Your task to perform on an android device: Go to wifi settings Image 0: 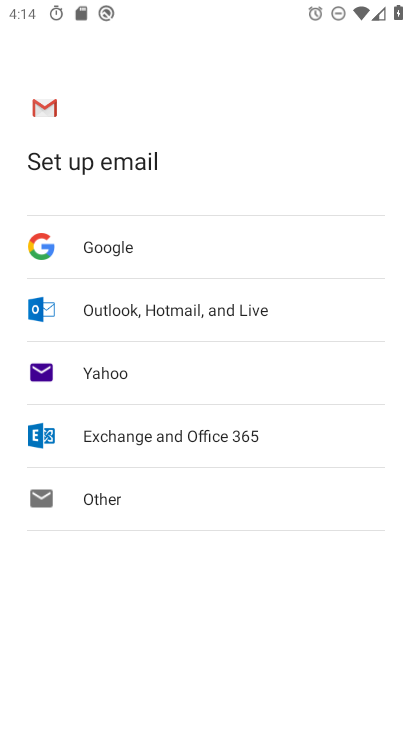
Step 0: press home button
Your task to perform on an android device: Go to wifi settings Image 1: 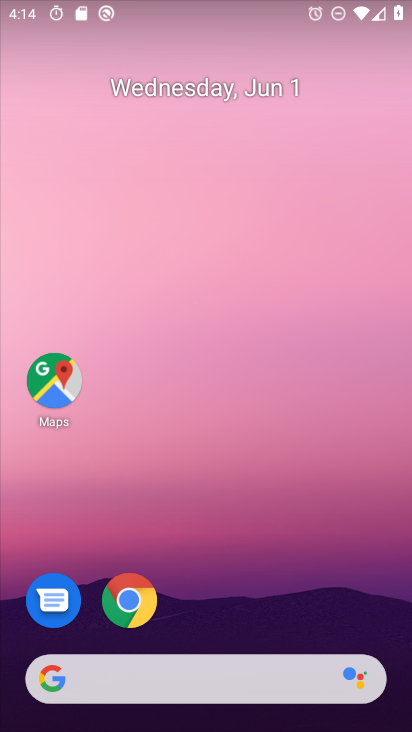
Step 1: drag from (198, 624) to (384, 9)
Your task to perform on an android device: Go to wifi settings Image 2: 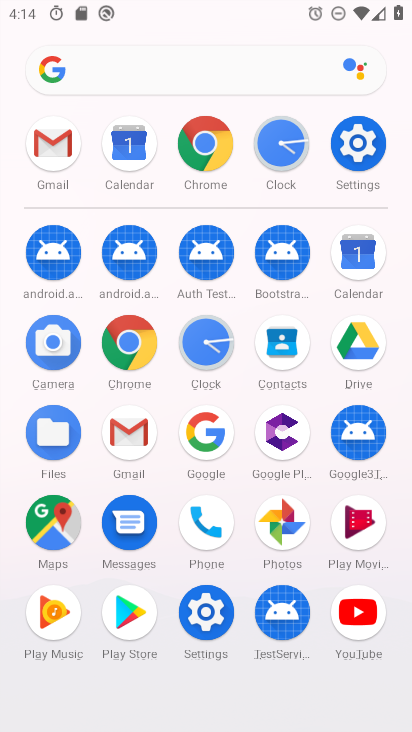
Step 2: click (355, 177)
Your task to perform on an android device: Go to wifi settings Image 3: 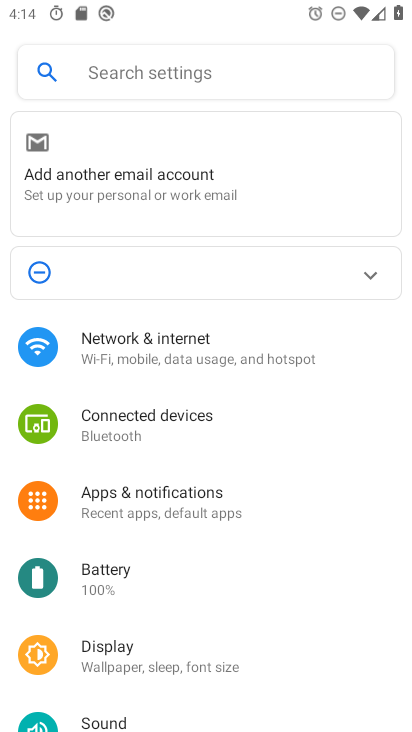
Step 3: click (179, 354)
Your task to perform on an android device: Go to wifi settings Image 4: 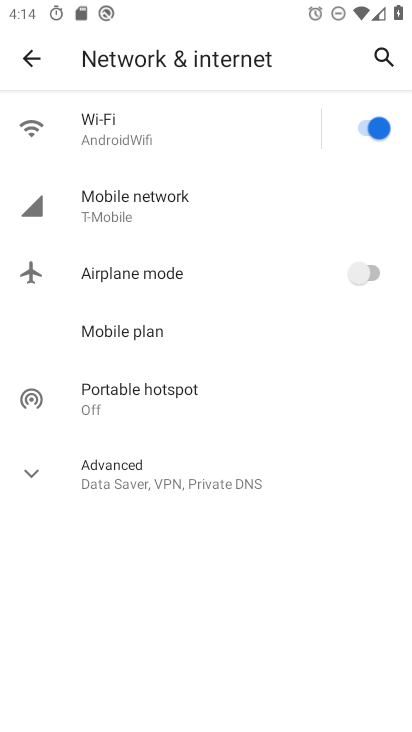
Step 4: click (115, 142)
Your task to perform on an android device: Go to wifi settings Image 5: 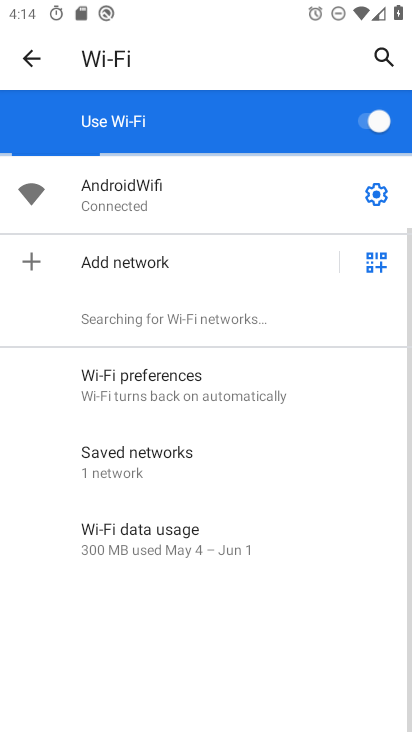
Step 5: task complete